Your task to perform on an android device: empty trash in the gmail app Image 0: 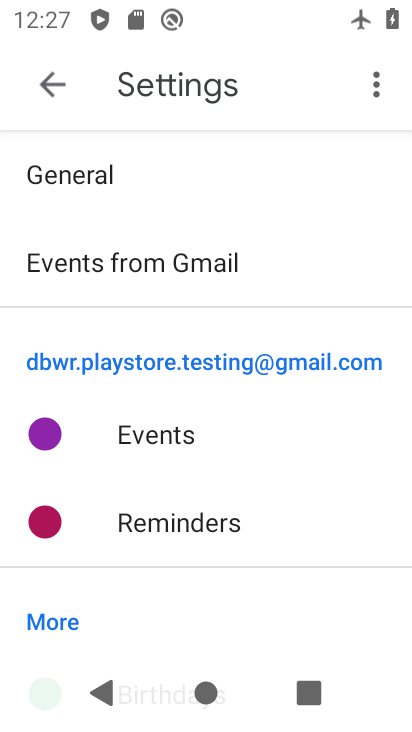
Step 0: press home button
Your task to perform on an android device: empty trash in the gmail app Image 1: 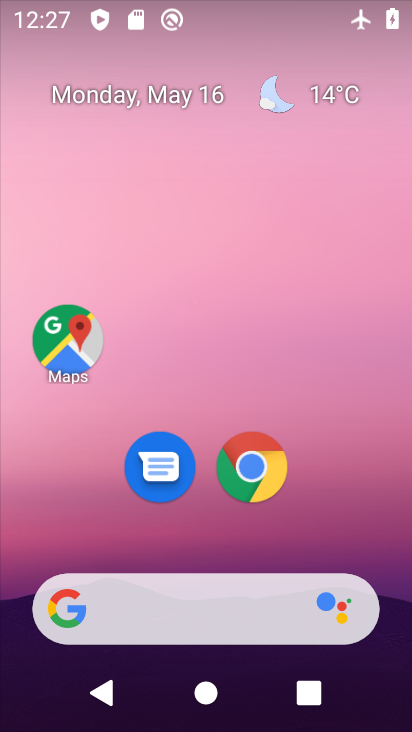
Step 1: drag from (358, 553) to (398, 271)
Your task to perform on an android device: empty trash in the gmail app Image 2: 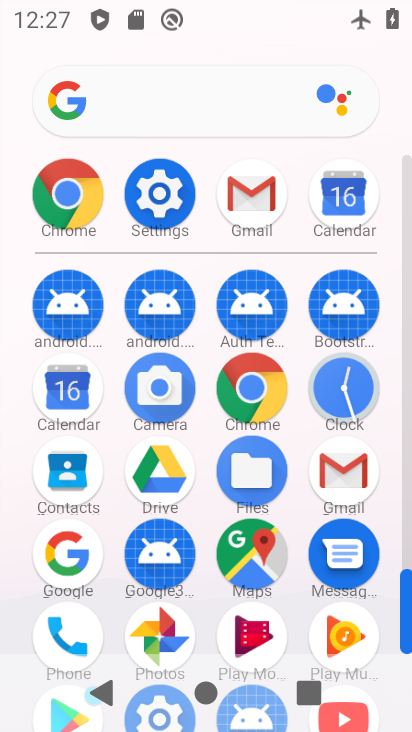
Step 2: click (149, 624)
Your task to perform on an android device: empty trash in the gmail app Image 3: 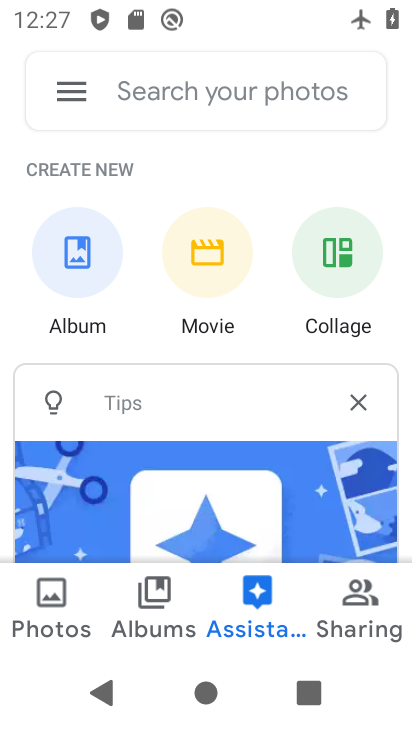
Step 3: click (81, 74)
Your task to perform on an android device: empty trash in the gmail app Image 4: 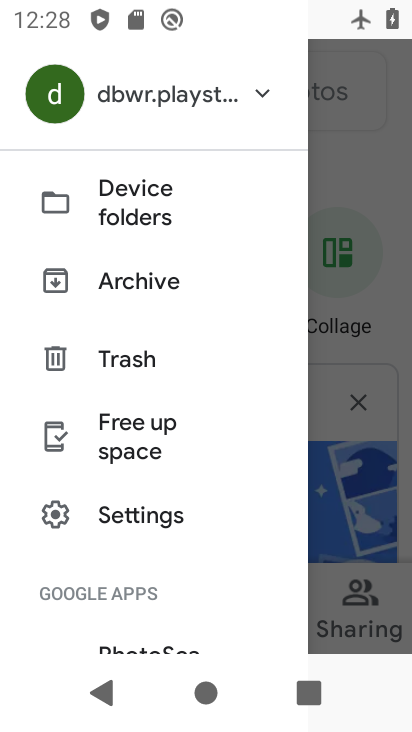
Step 4: click (101, 356)
Your task to perform on an android device: empty trash in the gmail app Image 5: 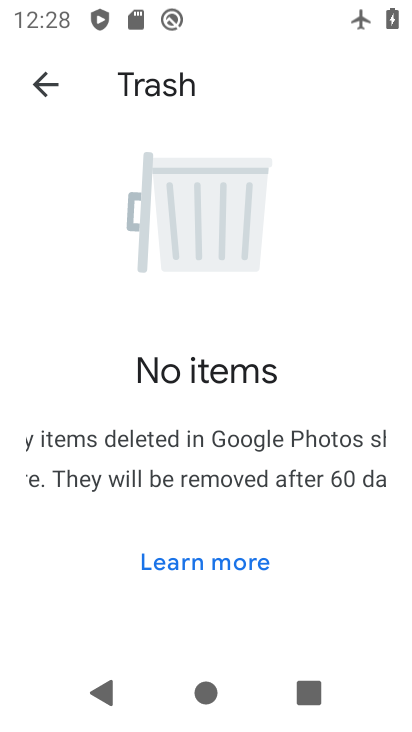
Step 5: task complete